Your task to perform on an android device: Search for Mexican restaurants on Maps Image 0: 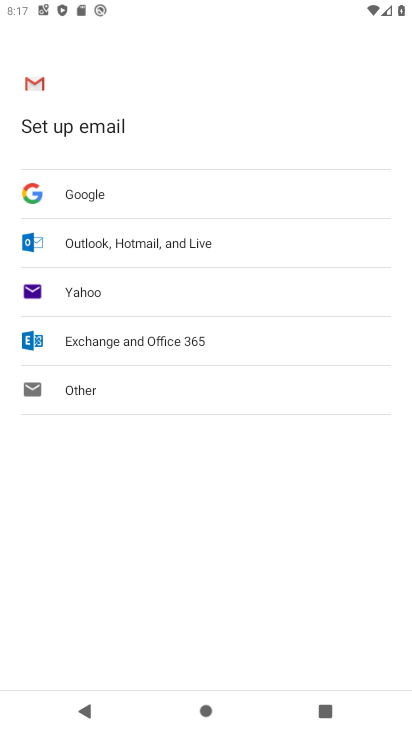
Step 0: press home button
Your task to perform on an android device: Search for Mexican restaurants on Maps Image 1: 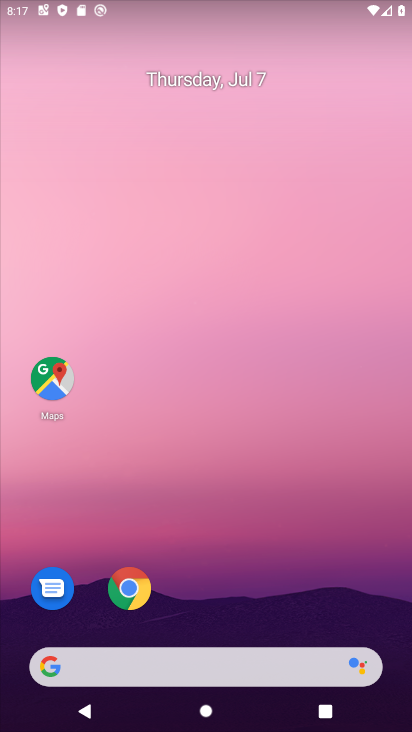
Step 1: click (56, 379)
Your task to perform on an android device: Search for Mexican restaurants on Maps Image 2: 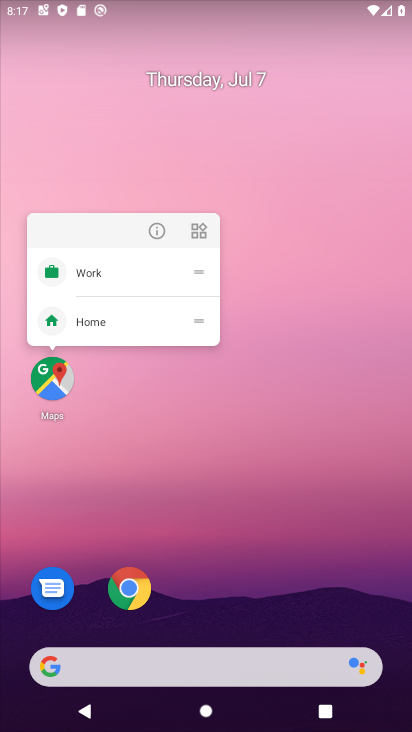
Step 2: click (56, 380)
Your task to perform on an android device: Search for Mexican restaurants on Maps Image 3: 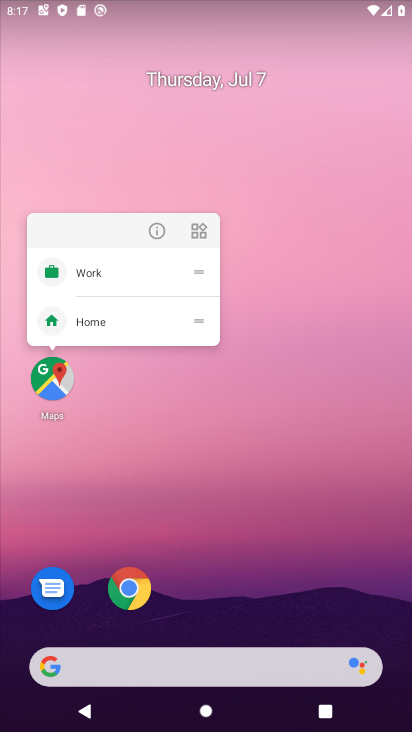
Step 3: click (53, 383)
Your task to perform on an android device: Search for Mexican restaurants on Maps Image 4: 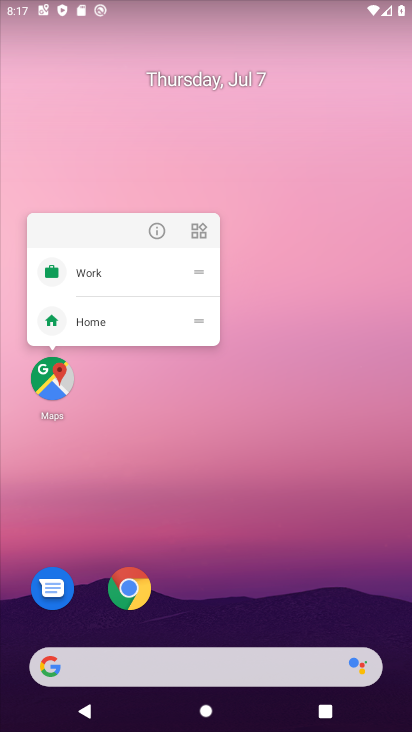
Step 4: click (61, 377)
Your task to perform on an android device: Search for Mexican restaurants on Maps Image 5: 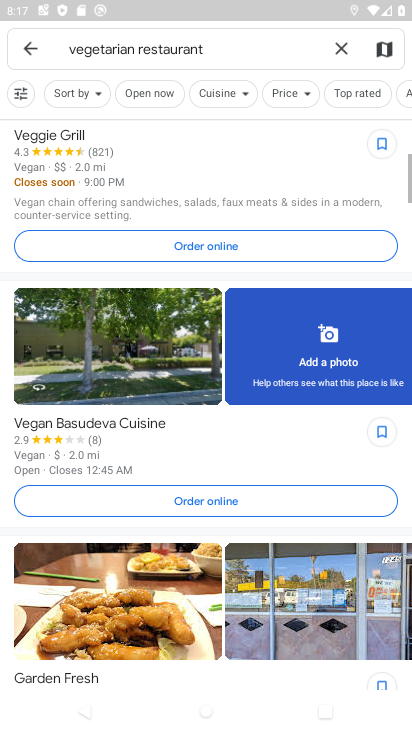
Step 5: click (341, 47)
Your task to perform on an android device: Search for Mexican restaurants on Maps Image 6: 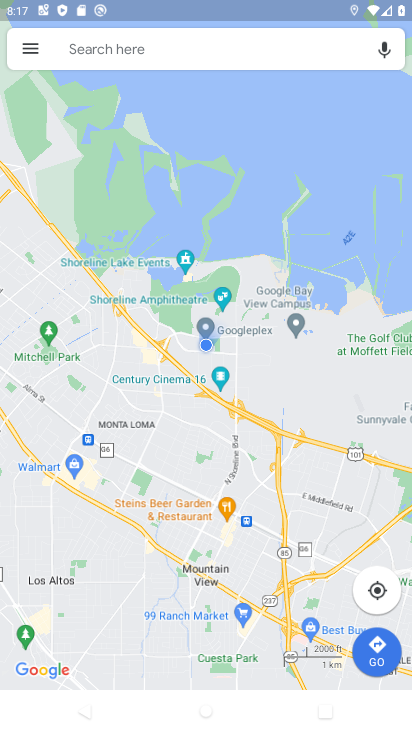
Step 6: click (255, 51)
Your task to perform on an android device: Search for Mexican restaurants on Maps Image 7: 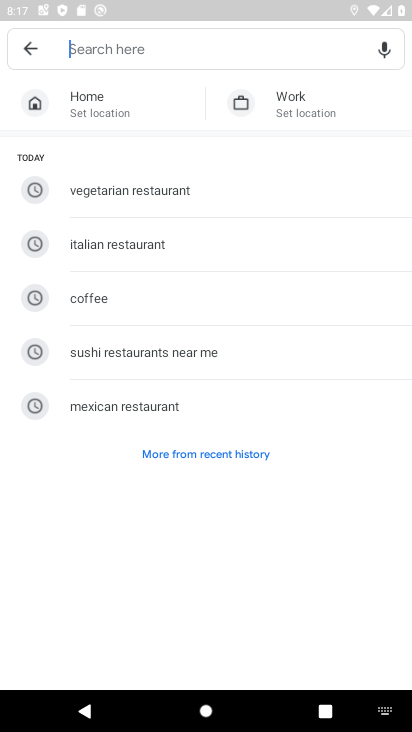
Step 7: click (141, 410)
Your task to perform on an android device: Search for Mexican restaurants on Maps Image 8: 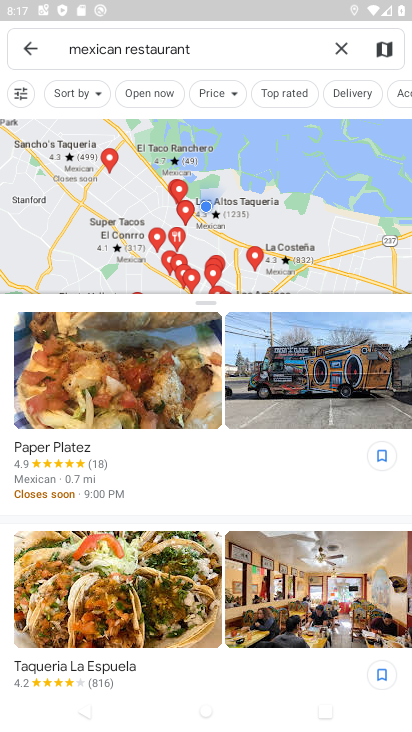
Step 8: task complete